Your task to perform on an android device: turn vacation reply on in the gmail app Image 0: 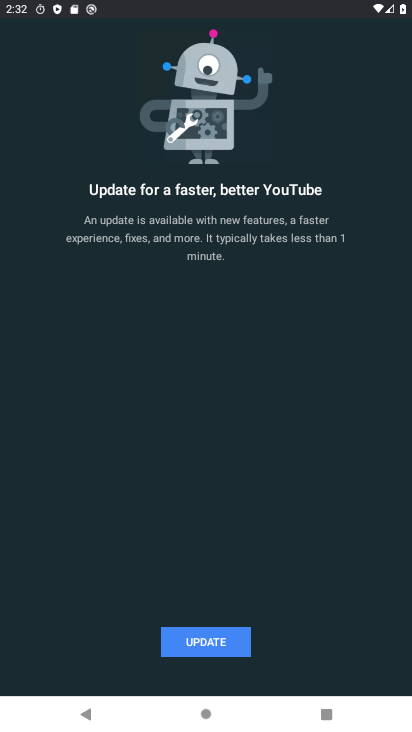
Step 0: press back button
Your task to perform on an android device: turn vacation reply on in the gmail app Image 1: 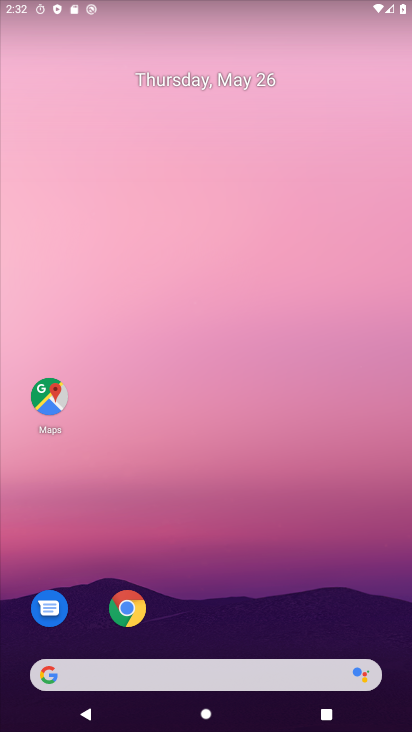
Step 1: drag from (258, 712) to (220, 62)
Your task to perform on an android device: turn vacation reply on in the gmail app Image 2: 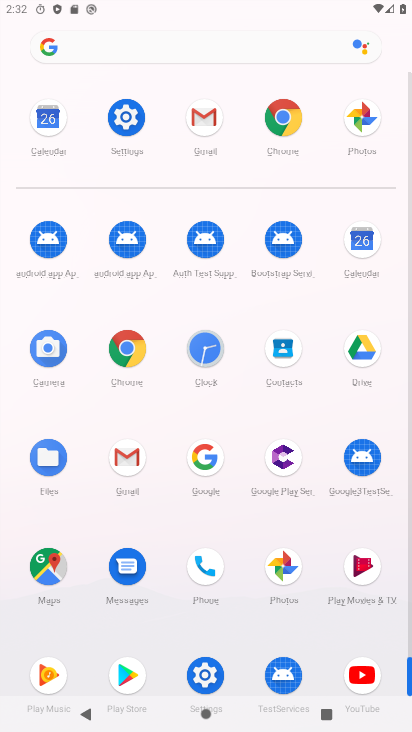
Step 2: click (126, 463)
Your task to perform on an android device: turn vacation reply on in the gmail app Image 3: 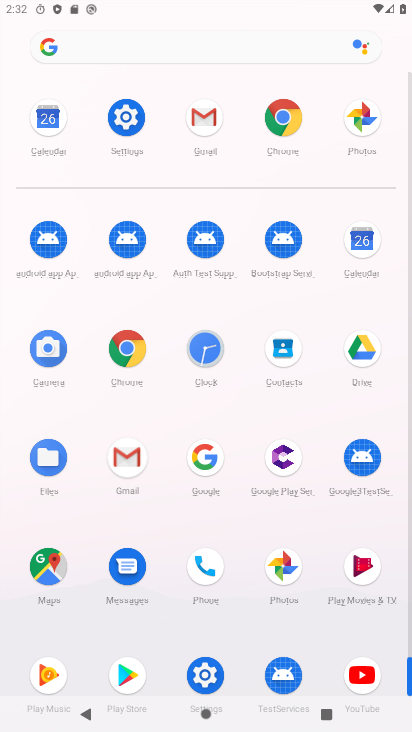
Step 3: click (126, 463)
Your task to perform on an android device: turn vacation reply on in the gmail app Image 4: 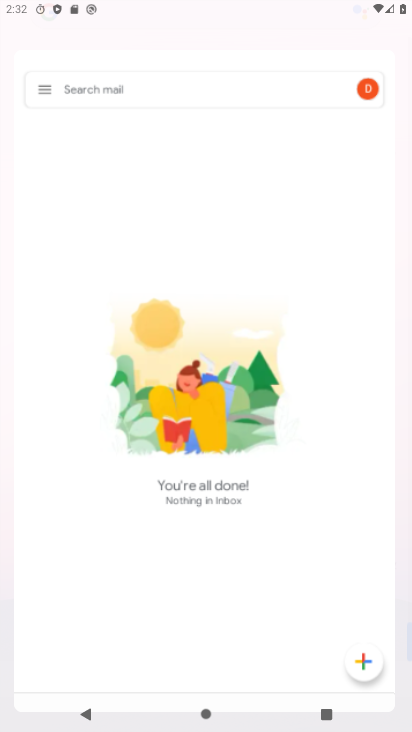
Step 4: click (126, 462)
Your task to perform on an android device: turn vacation reply on in the gmail app Image 5: 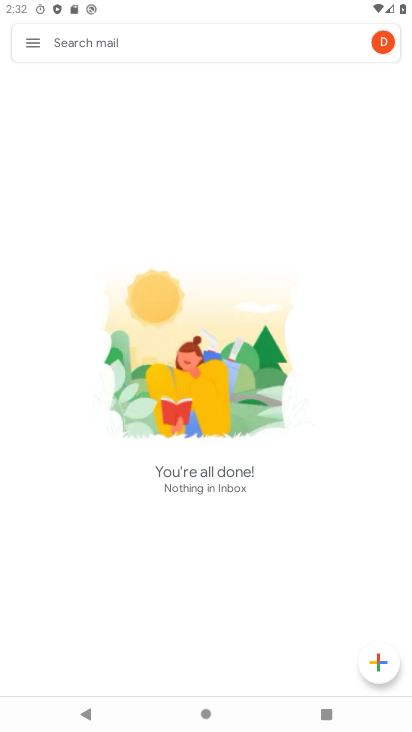
Step 5: press back button
Your task to perform on an android device: turn vacation reply on in the gmail app Image 6: 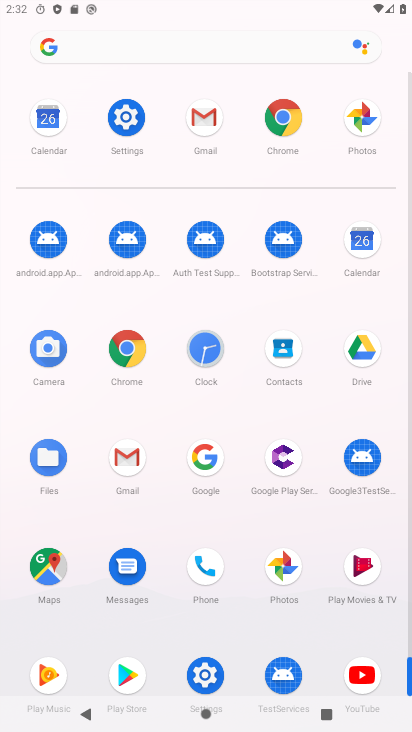
Step 6: click (122, 455)
Your task to perform on an android device: turn vacation reply on in the gmail app Image 7: 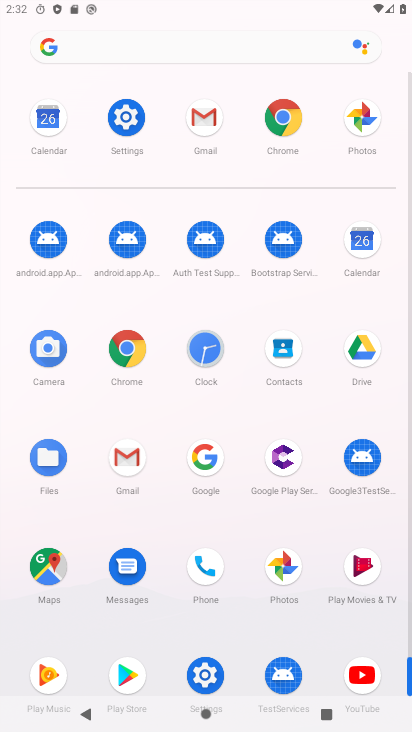
Step 7: click (129, 453)
Your task to perform on an android device: turn vacation reply on in the gmail app Image 8: 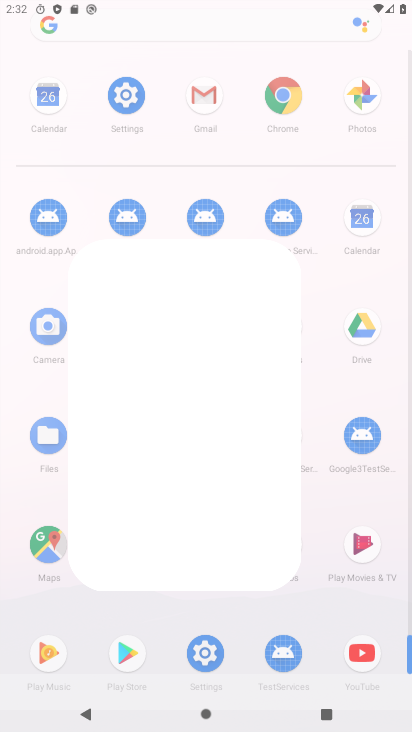
Step 8: click (130, 453)
Your task to perform on an android device: turn vacation reply on in the gmail app Image 9: 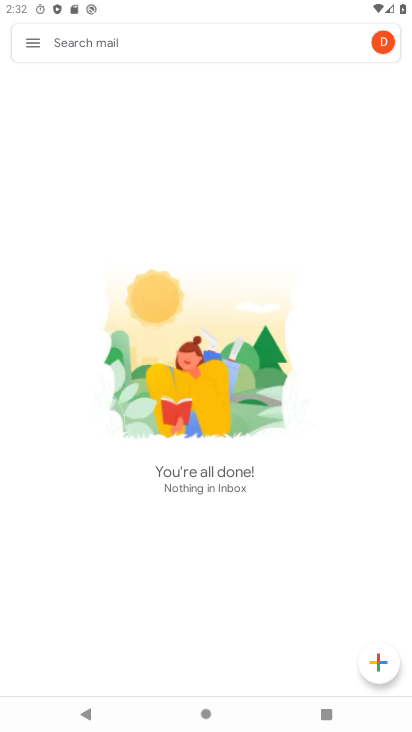
Step 9: click (29, 47)
Your task to perform on an android device: turn vacation reply on in the gmail app Image 10: 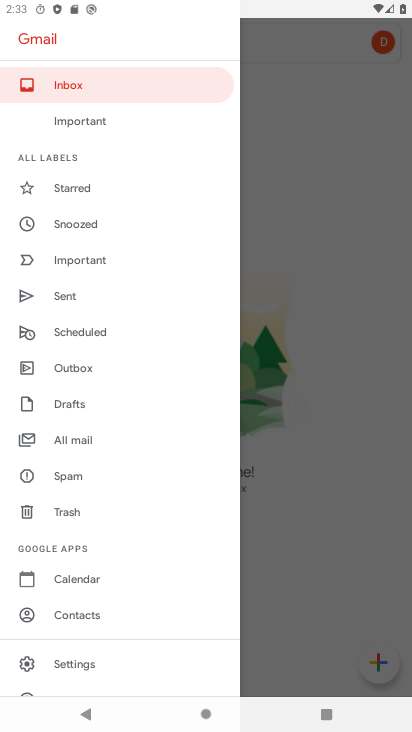
Step 10: click (179, 443)
Your task to perform on an android device: turn vacation reply on in the gmail app Image 11: 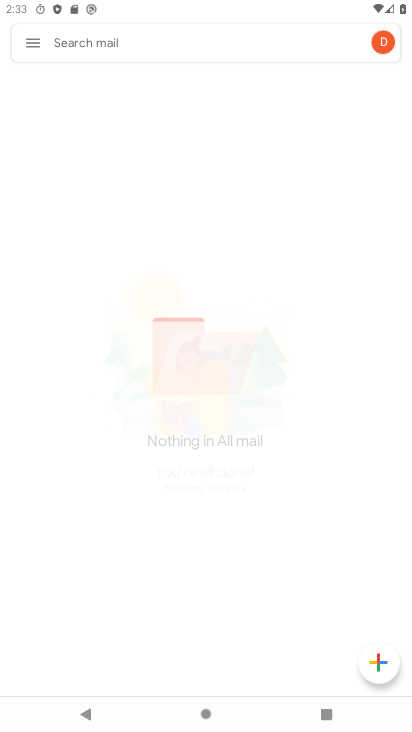
Step 11: click (159, 360)
Your task to perform on an android device: turn vacation reply on in the gmail app Image 12: 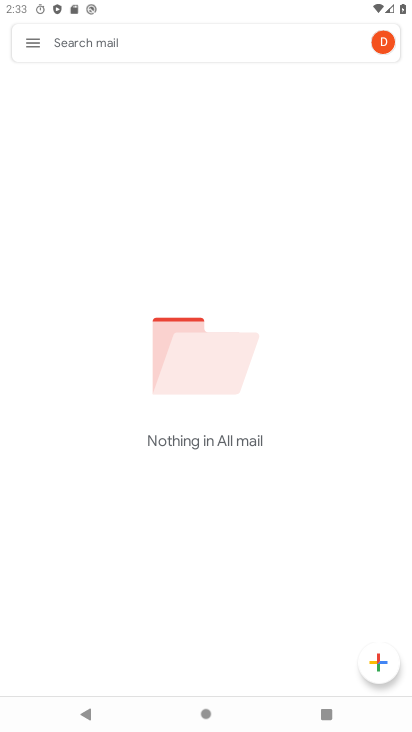
Step 12: click (27, 35)
Your task to perform on an android device: turn vacation reply on in the gmail app Image 13: 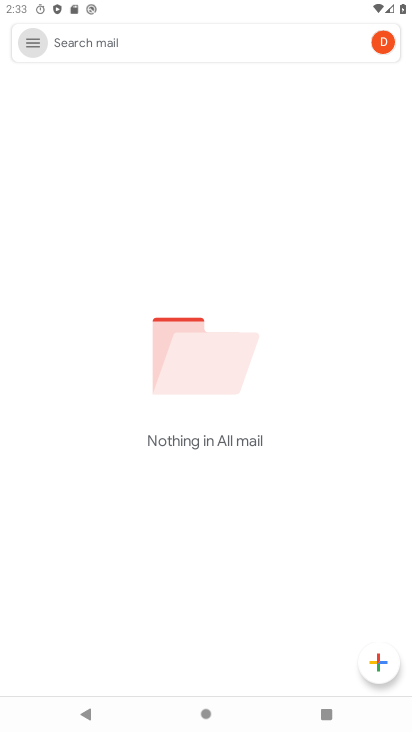
Step 13: click (29, 37)
Your task to perform on an android device: turn vacation reply on in the gmail app Image 14: 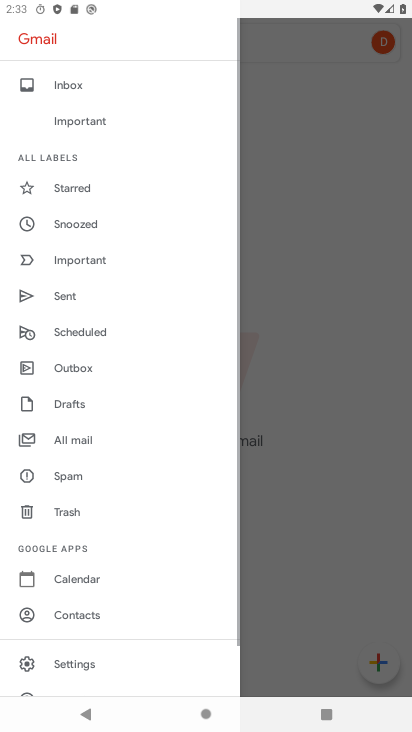
Step 14: click (30, 39)
Your task to perform on an android device: turn vacation reply on in the gmail app Image 15: 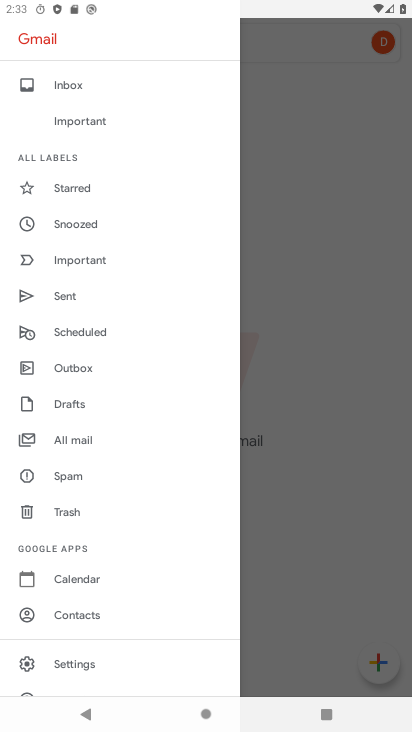
Step 15: drag from (98, 552) to (119, 140)
Your task to perform on an android device: turn vacation reply on in the gmail app Image 16: 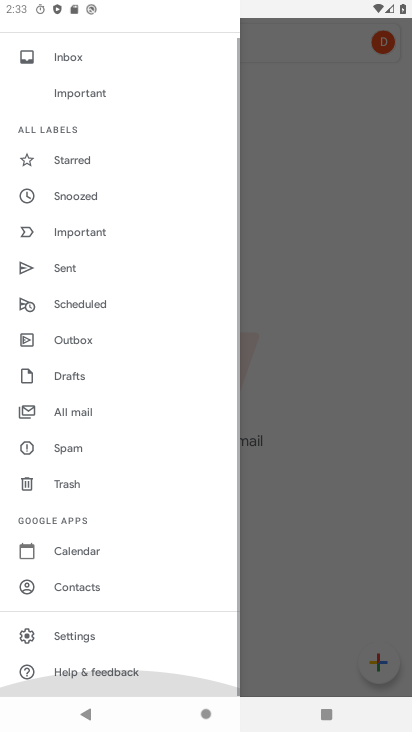
Step 16: drag from (121, 426) to (90, 100)
Your task to perform on an android device: turn vacation reply on in the gmail app Image 17: 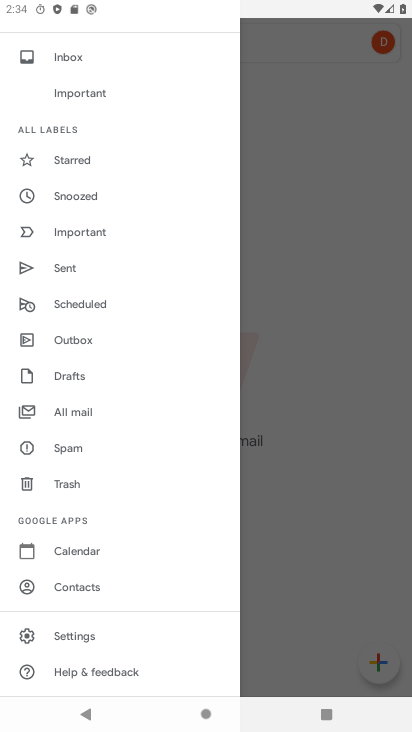
Step 17: click (184, 202)
Your task to perform on an android device: turn vacation reply on in the gmail app Image 18: 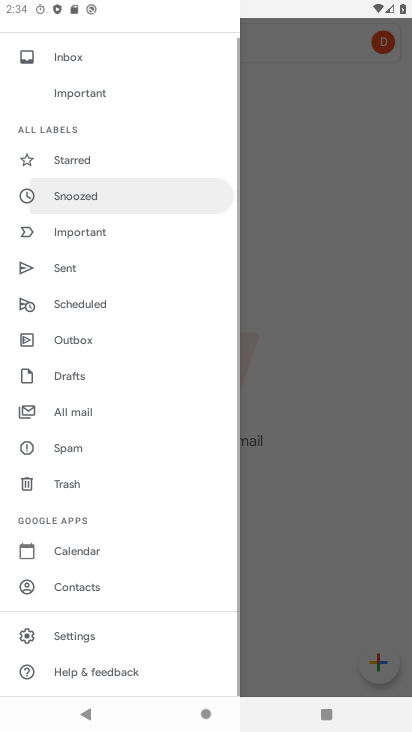
Step 18: click (176, 212)
Your task to perform on an android device: turn vacation reply on in the gmail app Image 19: 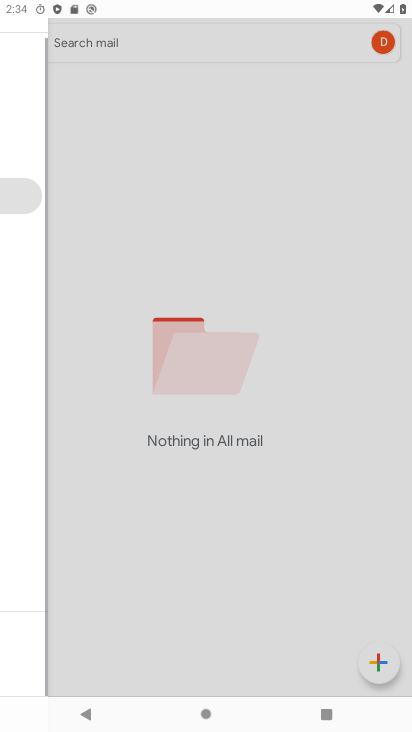
Step 19: drag from (176, 212) to (169, 257)
Your task to perform on an android device: turn vacation reply on in the gmail app Image 20: 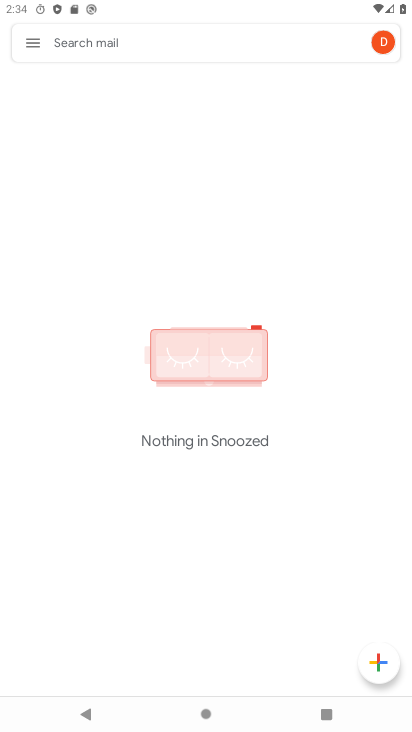
Step 20: press back button
Your task to perform on an android device: turn vacation reply on in the gmail app Image 21: 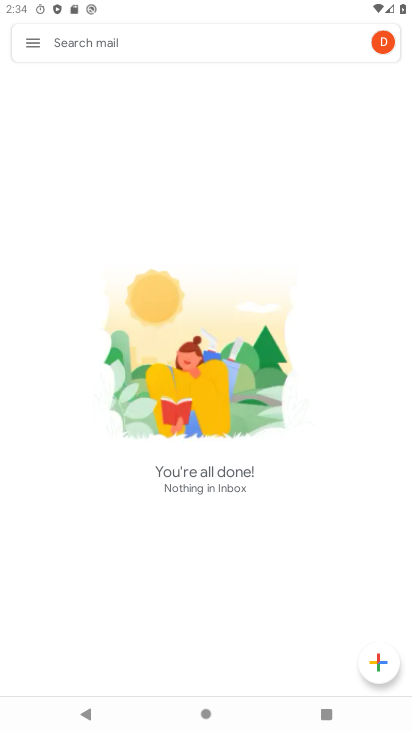
Step 21: press back button
Your task to perform on an android device: turn vacation reply on in the gmail app Image 22: 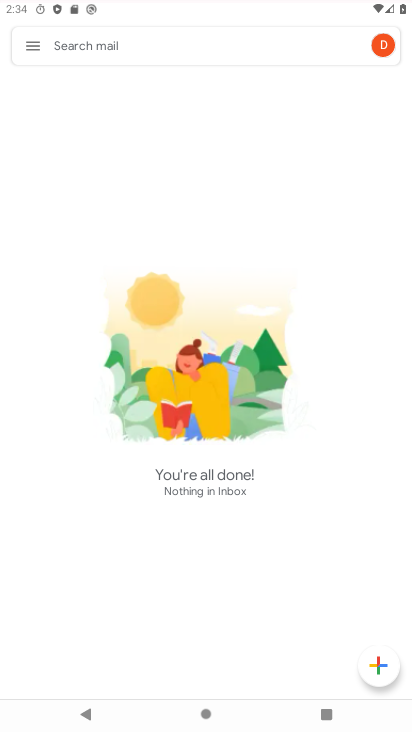
Step 22: press back button
Your task to perform on an android device: turn vacation reply on in the gmail app Image 23: 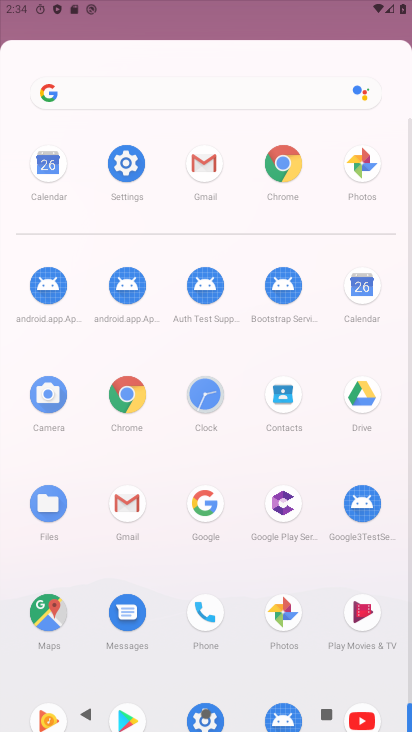
Step 23: press back button
Your task to perform on an android device: turn vacation reply on in the gmail app Image 24: 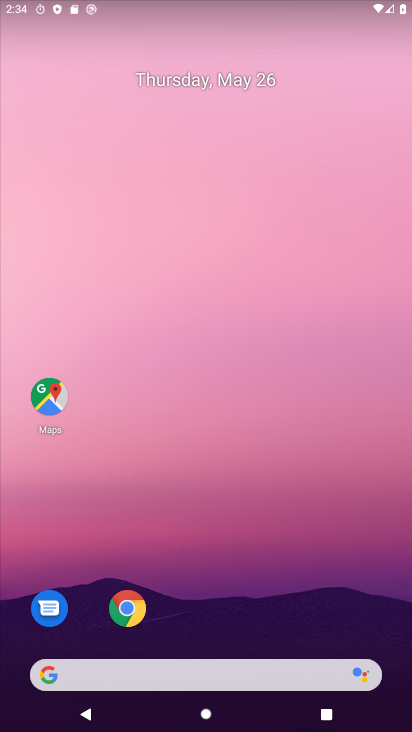
Step 24: press back button
Your task to perform on an android device: turn vacation reply on in the gmail app Image 25: 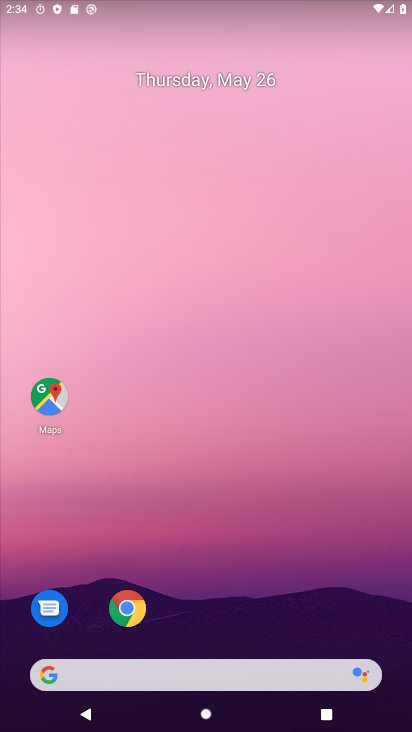
Step 25: drag from (299, 710) to (157, 28)
Your task to perform on an android device: turn vacation reply on in the gmail app Image 26: 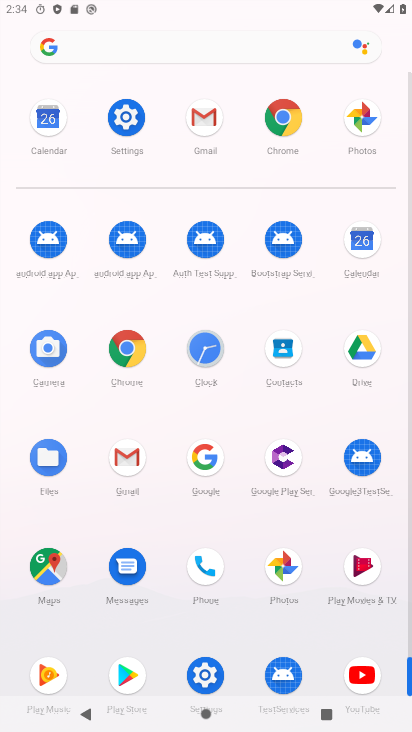
Step 26: click (116, 460)
Your task to perform on an android device: turn vacation reply on in the gmail app Image 27: 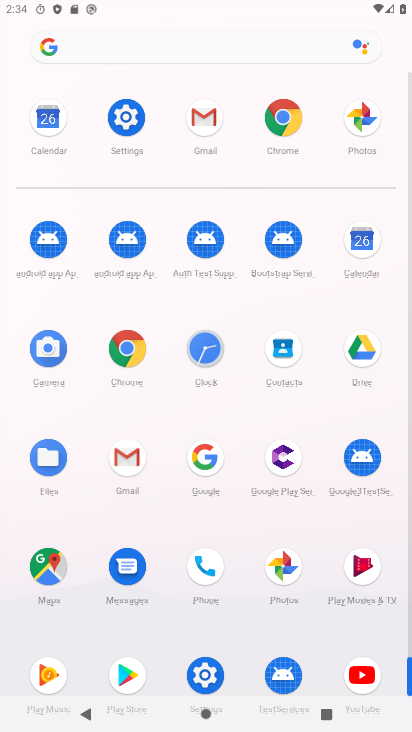
Step 27: click (128, 470)
Your task to perform on an android device: turn vacation reply on in the gmail app Image 28: 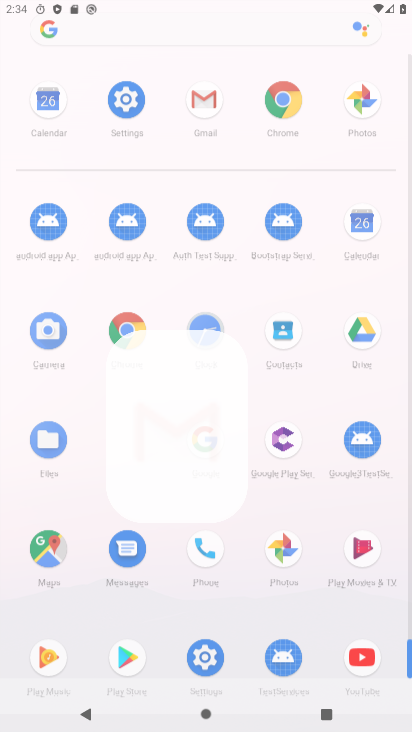
Step 28: click (129, 469)
Your task to perform on an android device: turn vacation reply on in the gmail app Image 29: 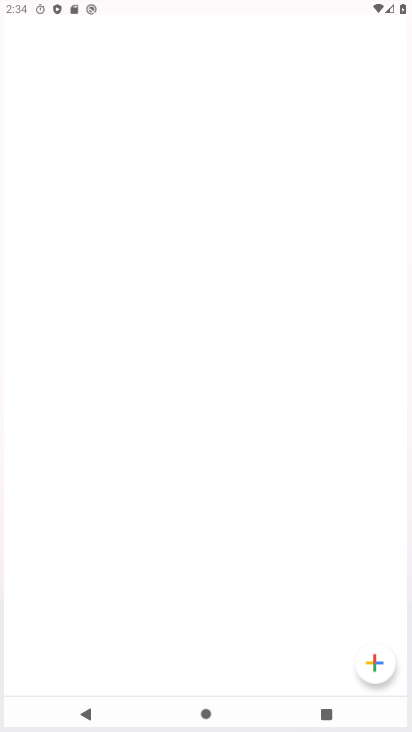
Step 29: click (129, 469)
Your task to perform on an android device: turn vacation reply on in the gmail app Image 30: 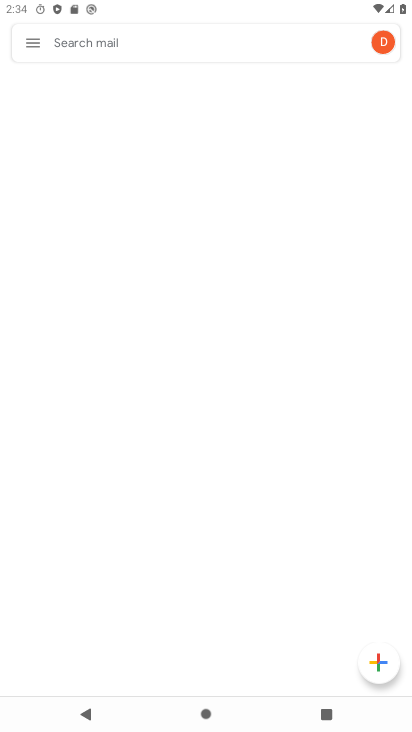
Step 30: click (129, 469)
Your task to perform on an android device: turn vacation reply on in the gmail app Image 31: 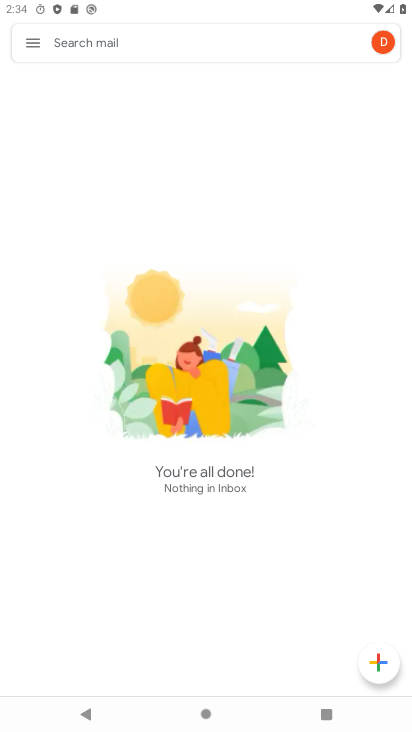
Step 31: click (25, 45)
Your task to perform on an android device: turn vacation reply on in the gmail app Image 32: 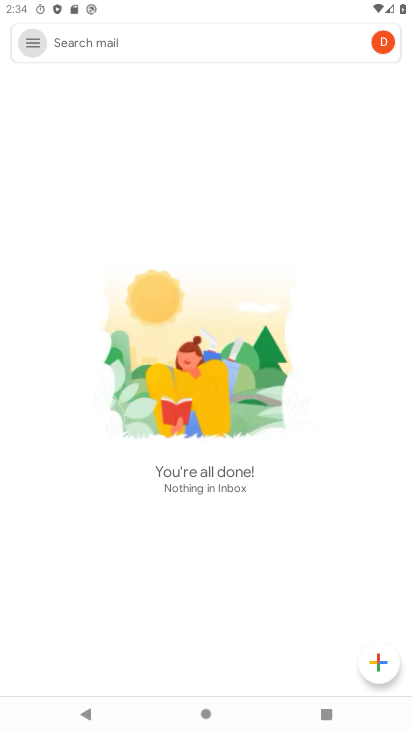
Step 32: click (25, 45)
Your task to perform on an android device: turn vacation reply on in the gmail app Image 33: 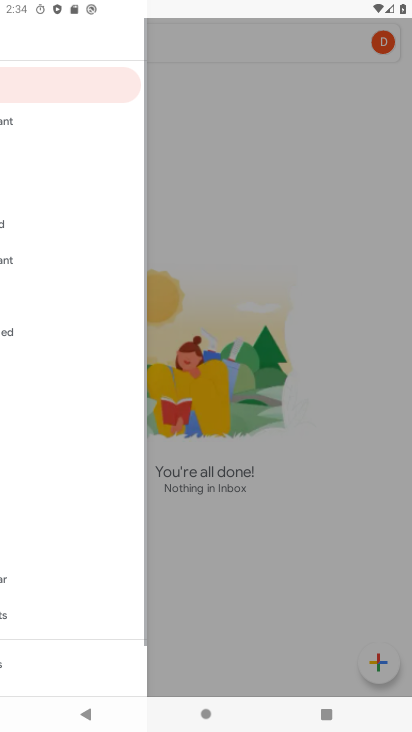
Step 33: click (26, 44)
Your task to perform on an android device: turn vacation reply on in the gmail app Image 34: 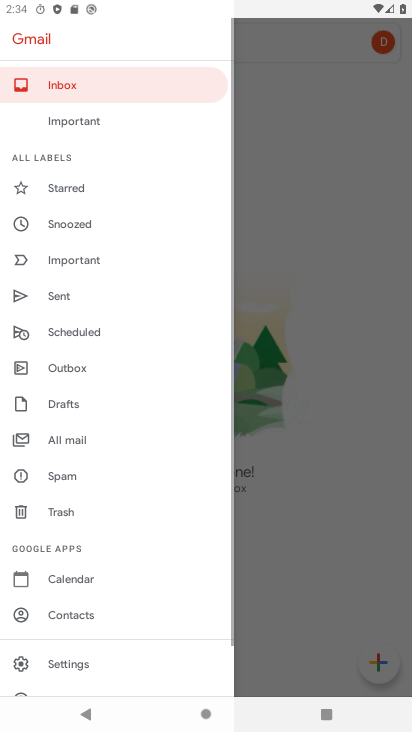
Step 34: click (24, 45)
Your task to perform on an android device: turn vacation reply on in the gmail app Image 35: 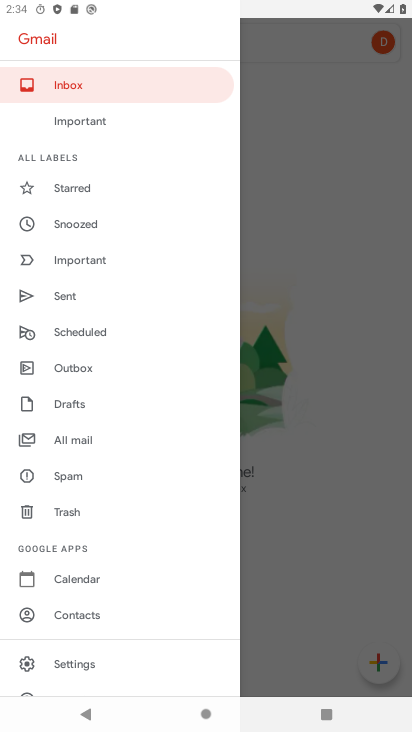
Step 35: click (77, 668)
Your task to perform on an android device: turn vacation reply on in the gmail app Image 36: 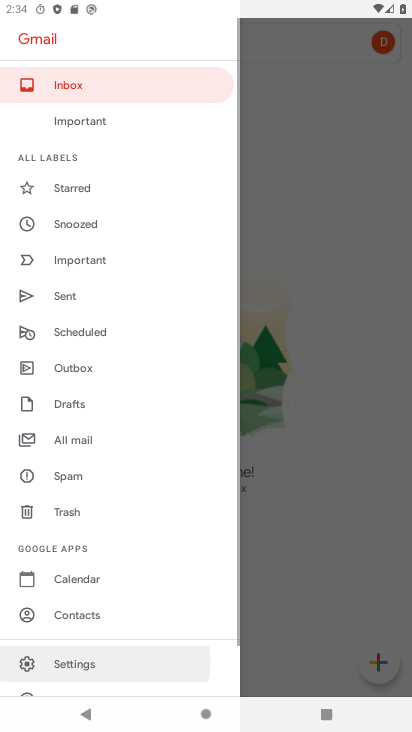
Step 36: click (77, 668)
Your task to perform on an android device: turn vacation reply on in the gmail app Image 37: 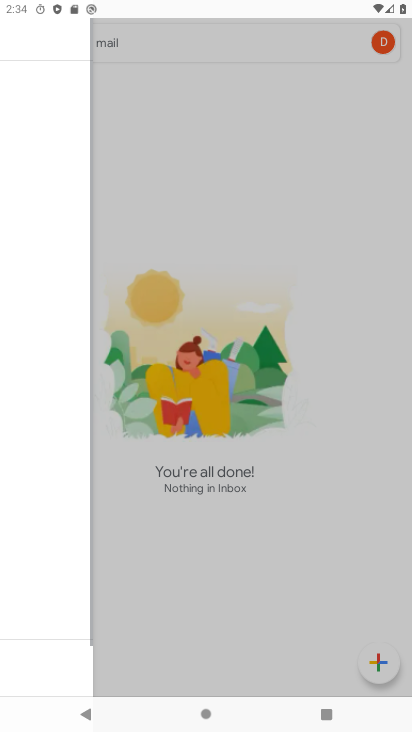
Step 37: click (76, 667)
Your task to perform on an android device: turn vacation reply on in the gmail app Image 38: 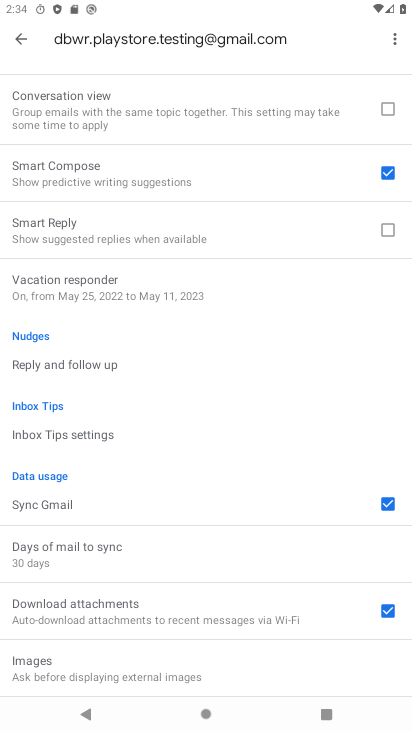
Step 38: click (103, 281)
Your task to perform on an android device: turn vacation reply on in the gmail app Image 39: 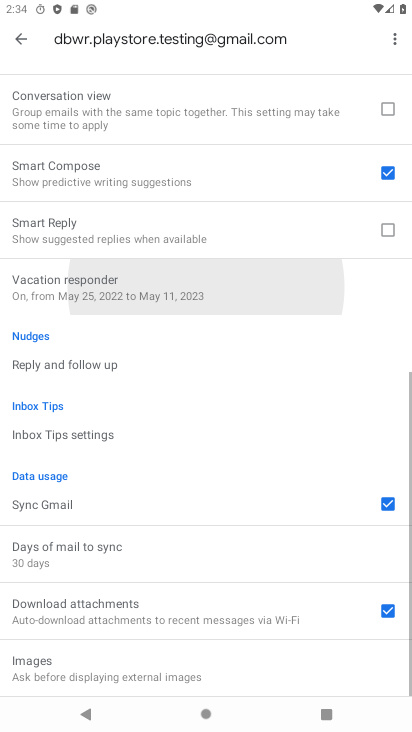
Step 39: click (103, 281)
Your task to perform on an android device: turn vacation reply on in the gmail app Image 40: 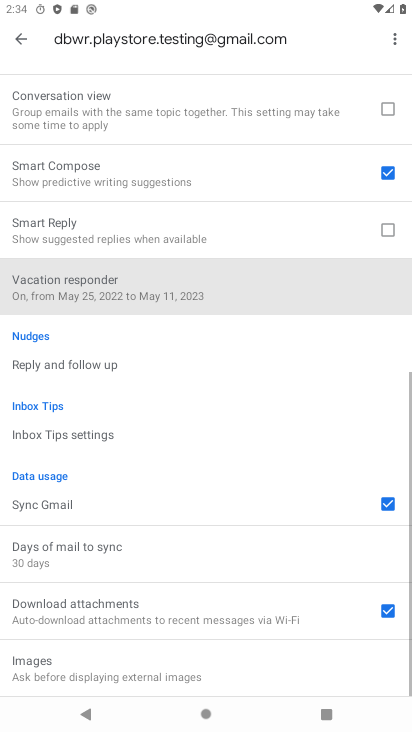
Step 40: click (102, 285)
Your task to perform on an android device: turn vacation reply on in the gmail app Image 41: 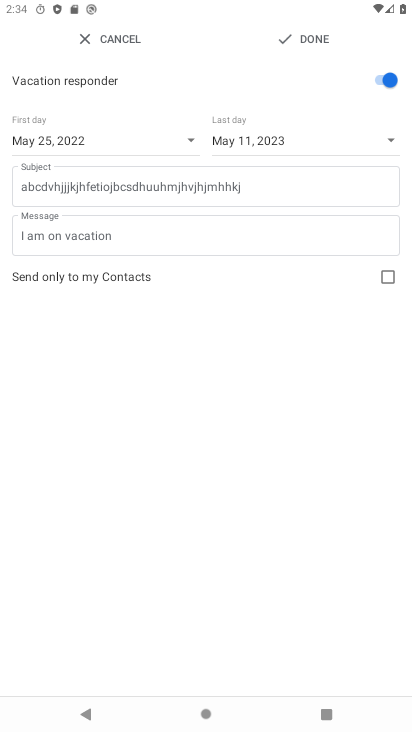
Step 41: task complete